Your task to perform on an android device: Is it going to rain today? Image 0: 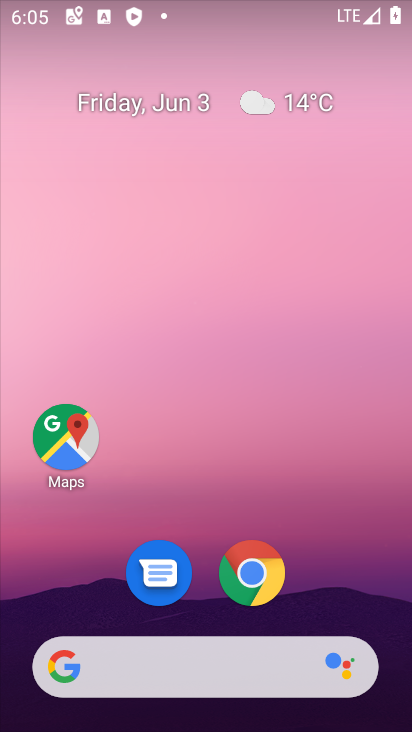
Step 0: drag from (303, 685) to (317, 179)
Your task to perform on an android device: Is it going to rain today? Image 1: 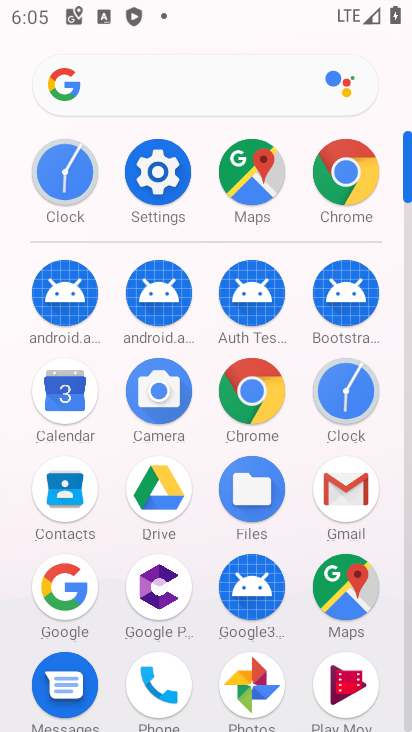
Step 1: press home button
Your task to perform on an android device: Is it going to rain today? Image 2: 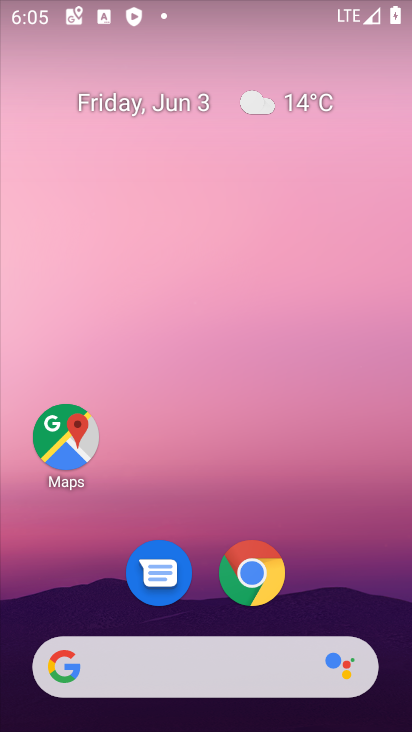
Step 2: drag from (100, 338) to (401, 272)
Your task to perform on an android device: Is it going to rain today? Image 3: 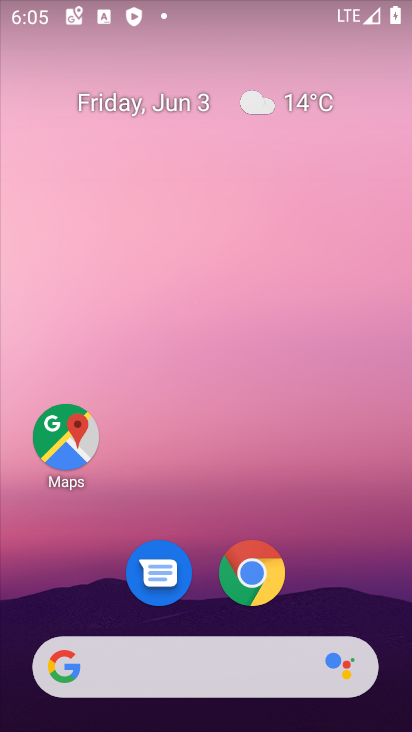
Step 3: drag from (60, 201) to (408, 194)
Your task to perform on an android device: Is it going to rain today? Image 4: 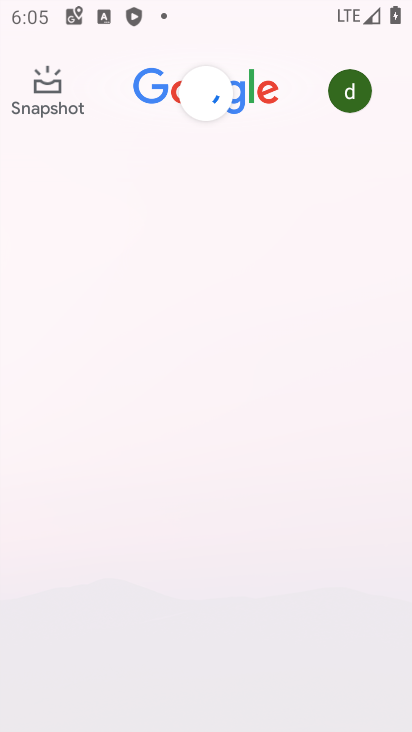
Step 4: drag from (1, 243) to (334, 286)
Your task to perform on an android device: Is it going to rain today? Image 5: 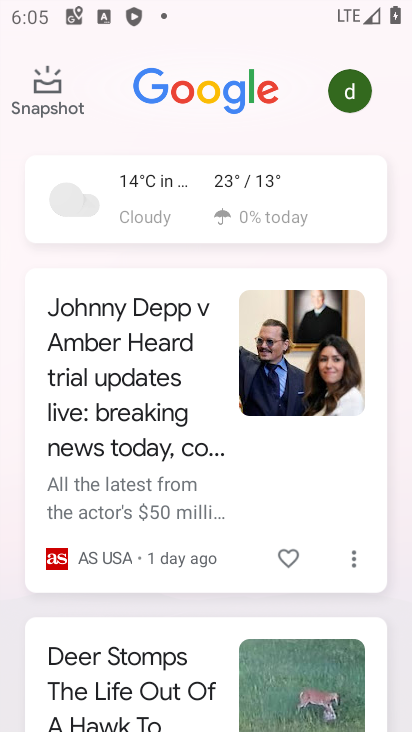
Step 5: click (278, 218)
Your task to perform on an android device: Is it going to rain today? Image 6: 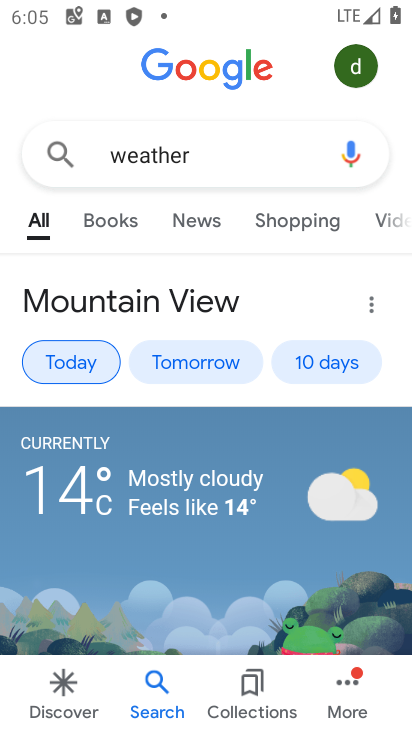
Step 6: task complete